Your task to perform on an android device: turn off picture-in-picture Image 0: 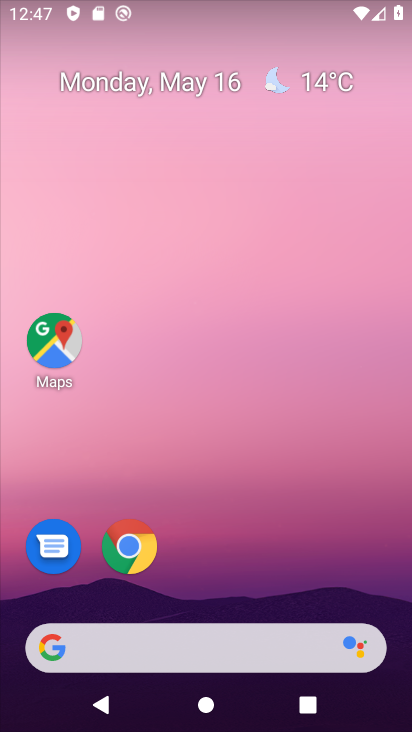
Step 0: drag from (226, 670) to (360, 242)
Your task to perform on an android device: turn off picture-in-picture Image 1: 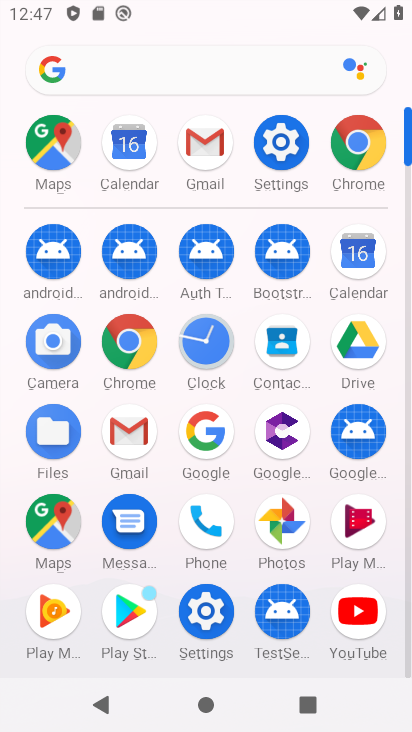
Step 1: click (276, 159)
Your task to perform on an android device: turn off picture-in-picture Image 2: 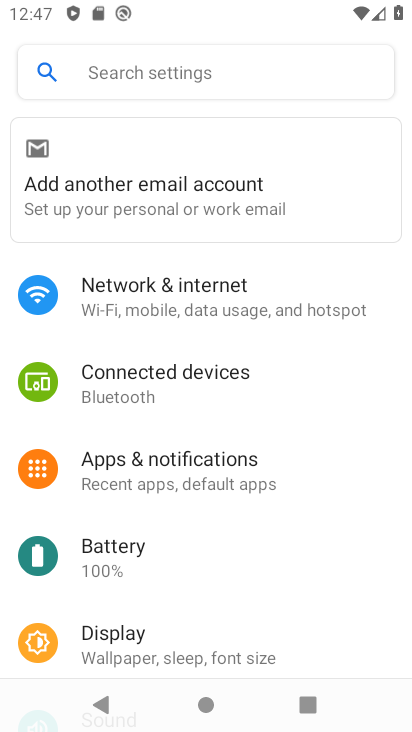
Step 2: click (140, 78)
Your task to perform on an android device: turn off picture-in-picture Image 3: 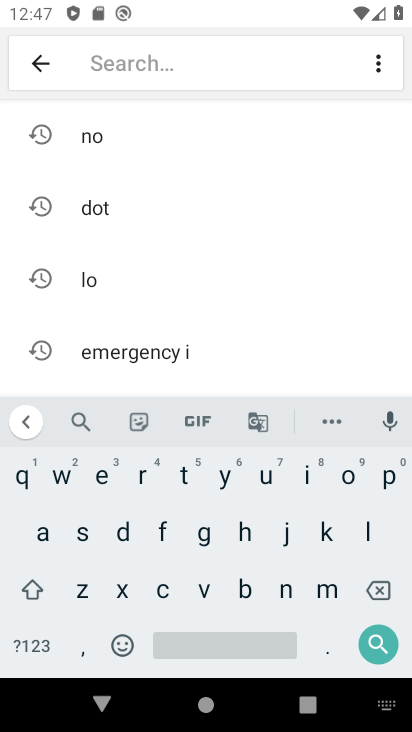
Step 3: click (388, 479)
Your task to perform on an android device: turn off picture-in-picture Image 4: 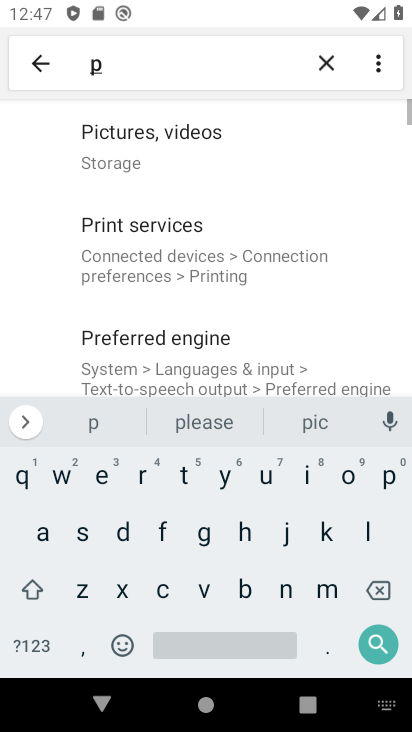
Step 4: click (311, 478)
Your task to perform on an android device: turn off picture-in-picture Image 5: 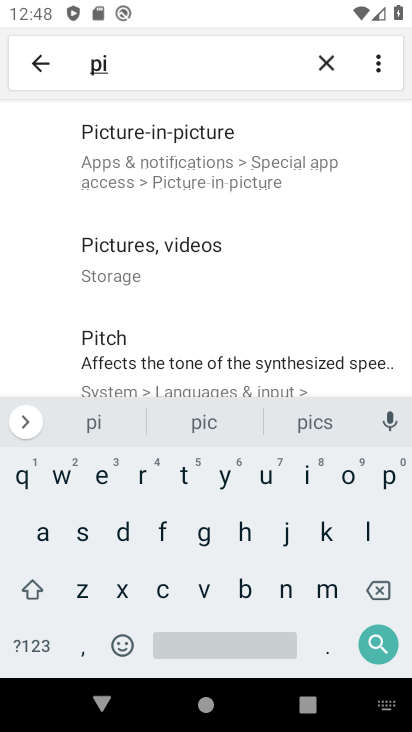
Step 5: click (173, 140)
Your task to perform on an android device: turn off picture-in-picture Image 6: 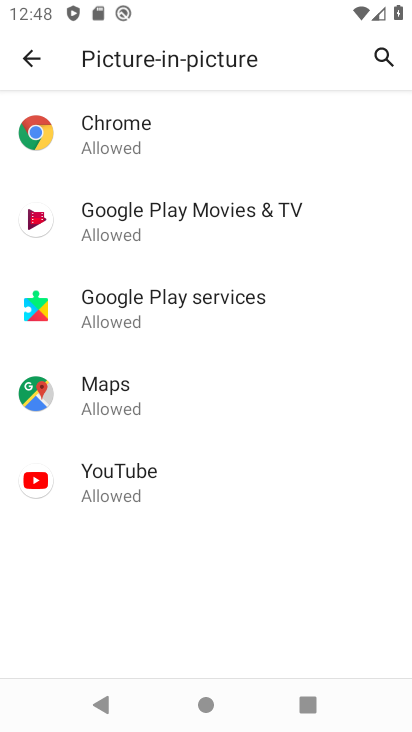
Step 6: task complete